Your task to perform on an android device: Show me popular games on the Play Store Image 0: 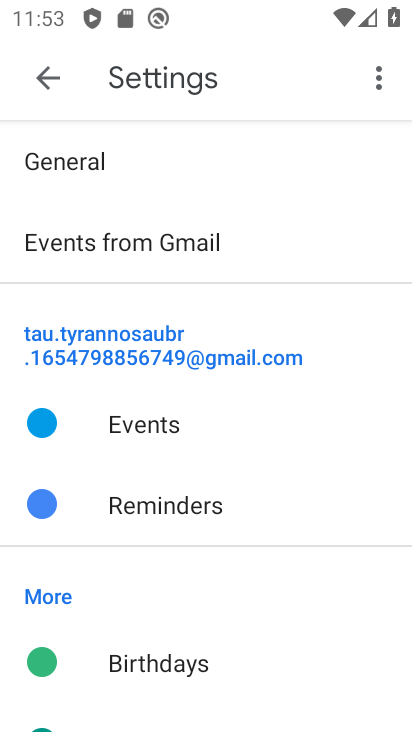
Step 0: press home button
Your task to perform on an android device: Show me popular games on the Play Store Image 1: 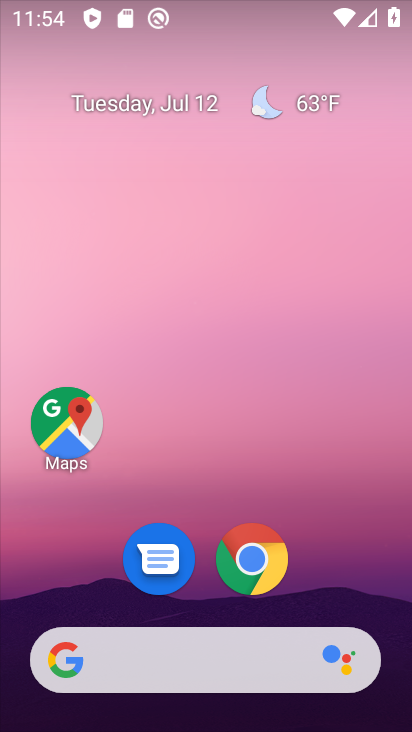
Step 1: drag from (360, 584) to (356, 94)
Your task to perform on an android device: Show me popular games on the Play Store Image 2: 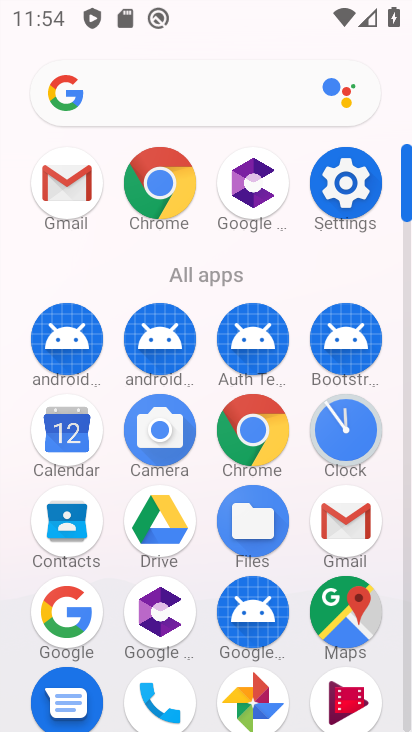
Step 2: drag from (389, 492) to (394, 227)
Your task to perform on an android device: Show me popular games on the Play Store Image 3: 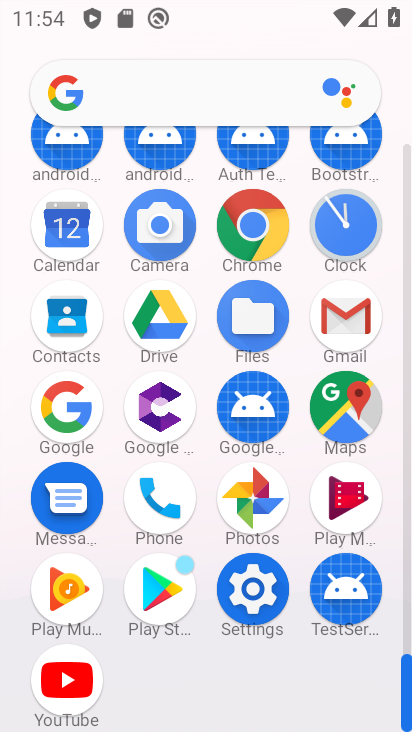
Step 3: click (170, 588)
Your task to perform on an android device: Show me popular games on the Play Store Image 4: 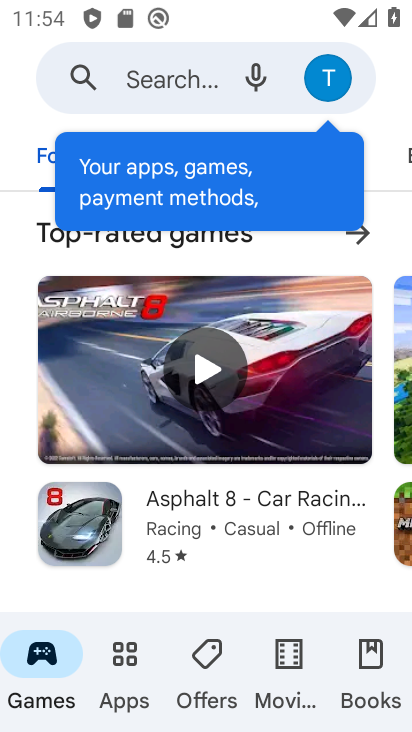
Step 4: task complete